Your task to perform on an android device: Search for seafood restaurants on Google Maps Image 0: 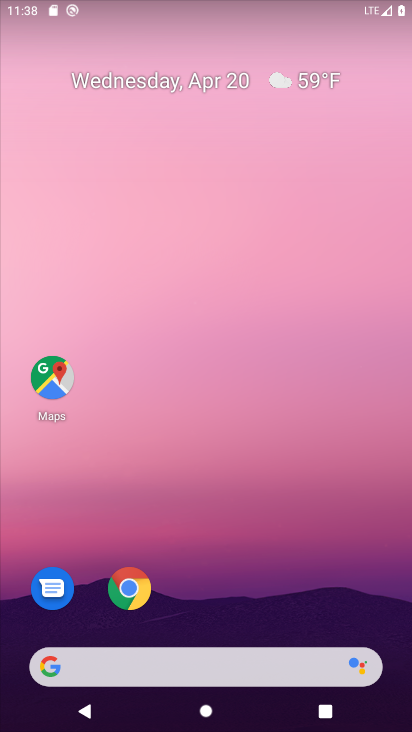
Step 0: click (58, 376)
Your task to perform on an android device: Search for seafood restaurants on Google Maps Image 1: 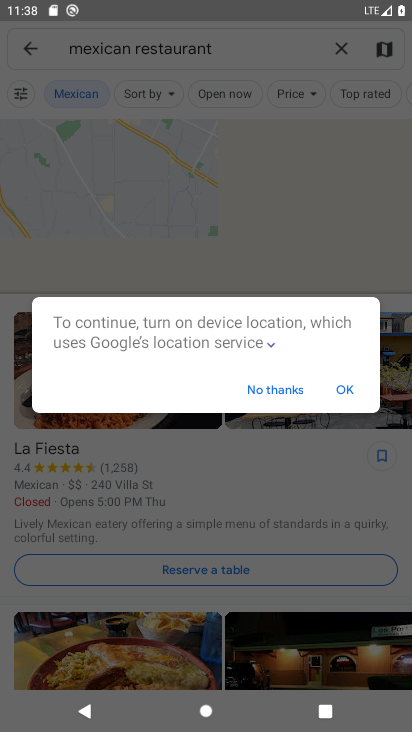
Step 1: click (350, 388)
Your task to perform on an android device: Search for seafood restaurants on Google Maps Image 2: 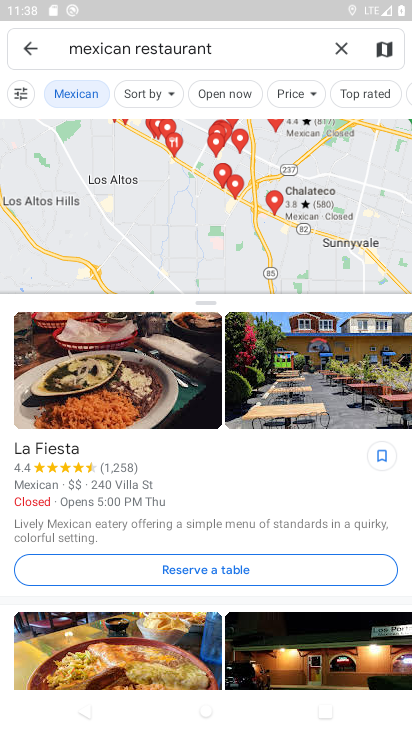
Step 2: click (343, 44)
Your task to perform on an android device: Search for seafood restaurants on Google Maps Image 3: 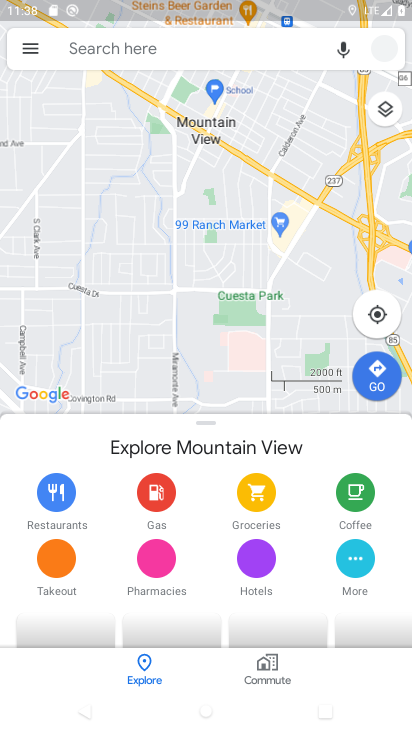
Step 3: click (177, 44)
Your task to perform on an android device: Search for seafood restaurants on Google Maps Image 4: 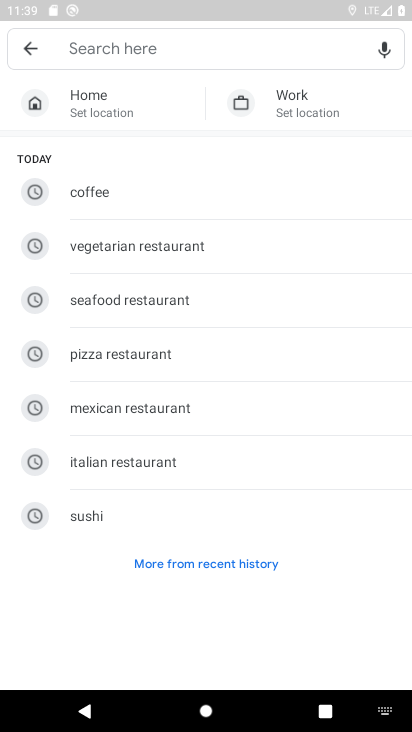
Step 4: click (118, 307)
Your task to perform on an android device: Search for seafood restaurants on Google Maps Image 5: 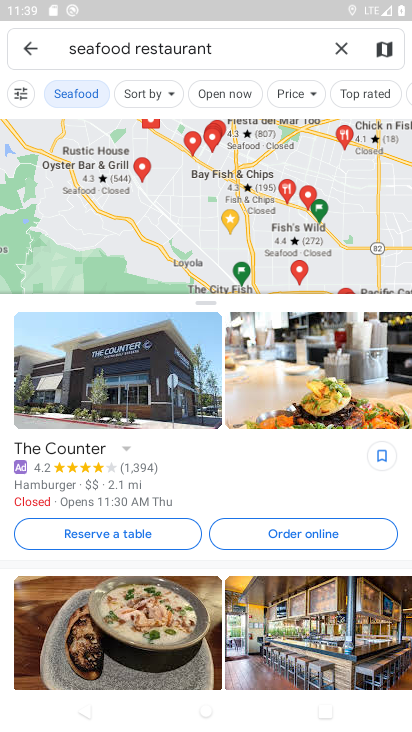
Step 5: task complete